Your task to perform on an android device: Open Yahoo.com Image 0: 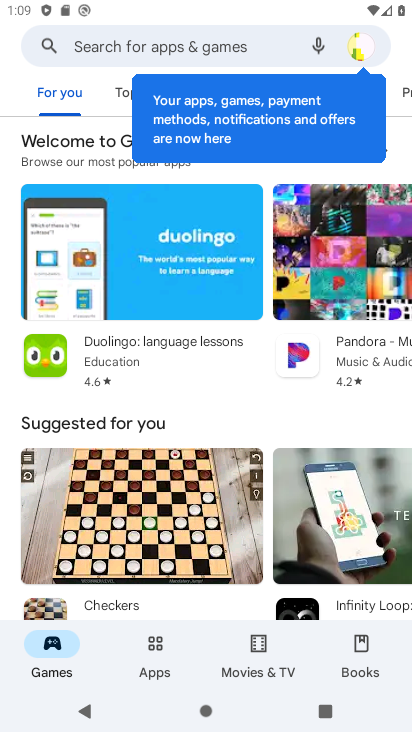
Step 0: press home button
Your task to perform on an android device: Open Yahoo.com Image 1: 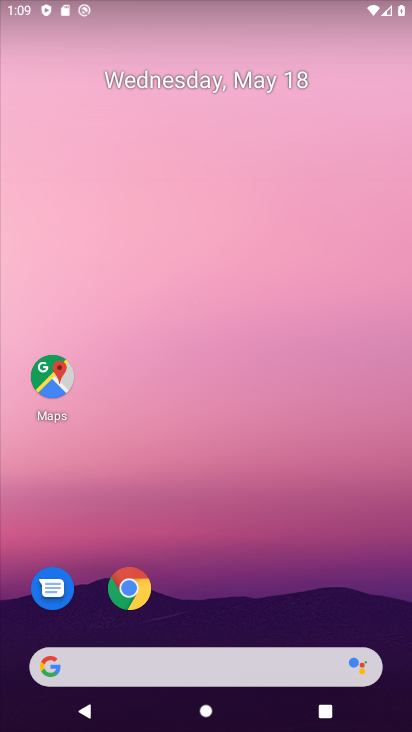
Step 1: drag from (373, 596) to (367, 153)
Your task to perform on an android device: Open Yahoo.com Image 2: 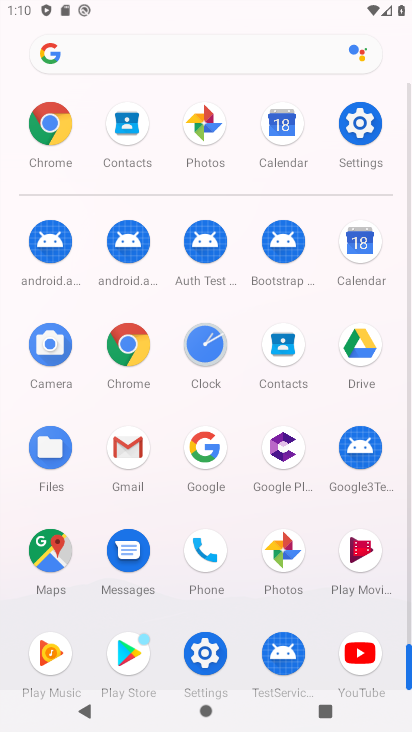
Step 2: drag from (317, 606) to (305, 387)
Your task to perform on an android device: Open Yahoo.com Image 3: 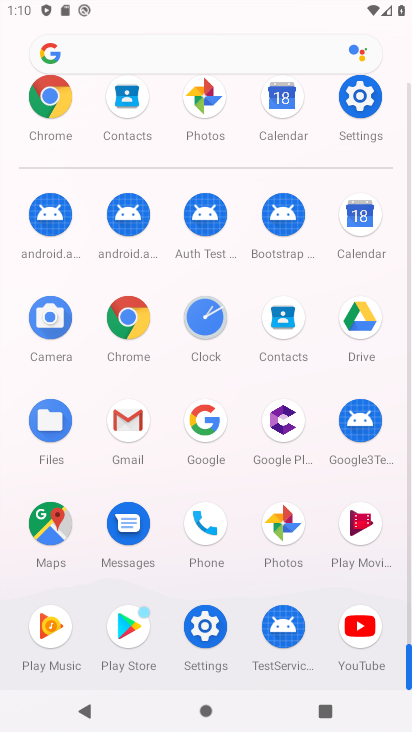
Step 3: drag from (240, 299) to (241, 428)
Your task to perform on an android device: Open Yahoo.com Image 4: 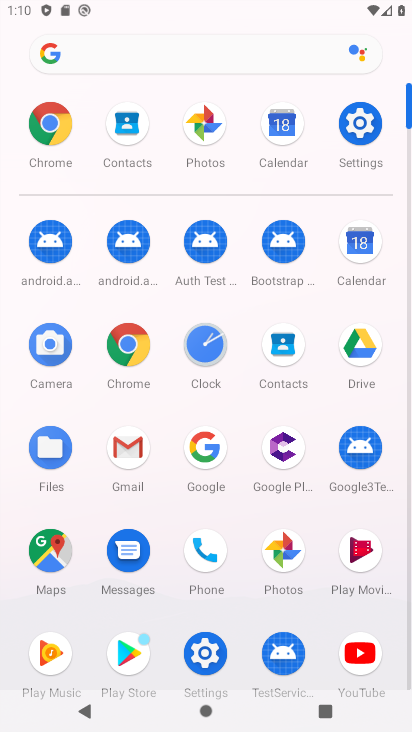
Step 4: click (131, 354)
Your task to perform on an android device: Open Yahoo.com Image 5: 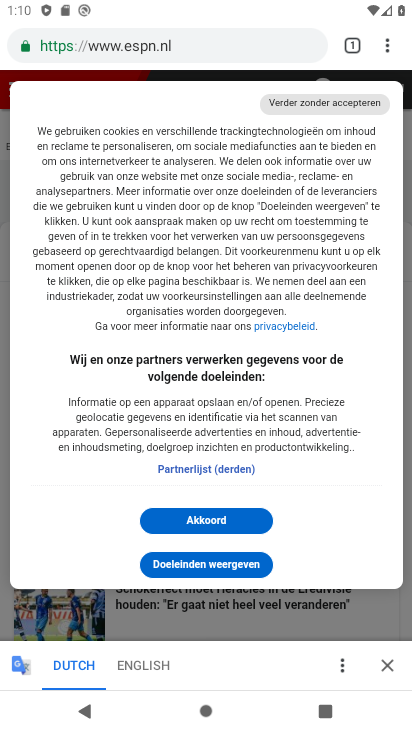
Step 5: click (160, 47)
Your task to perform on an android device: Open Yahoo.com Image 6: 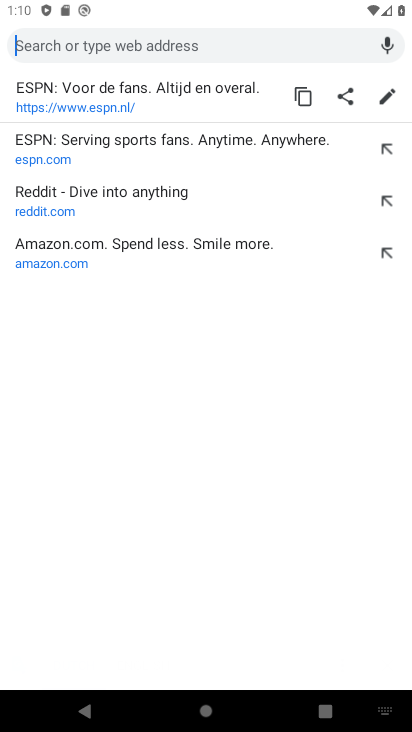
Step 6: type "yahoo.com"
Your task to perform on an android device: Open Yahoo.com Image 7: 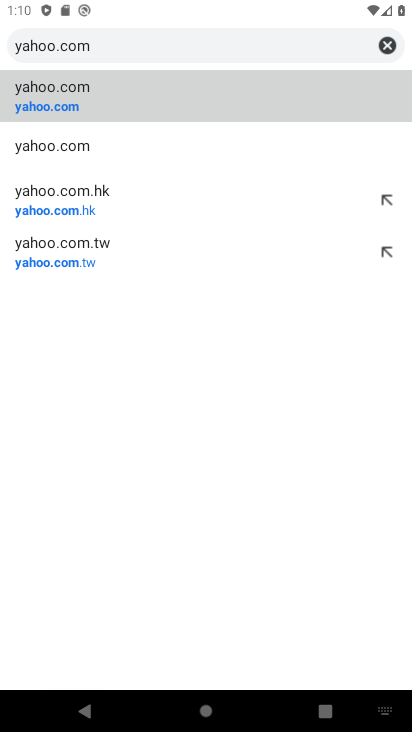
Step 7: click (110, 101)
Your task to perform on an android device: Open Yahoo.com Image 8: 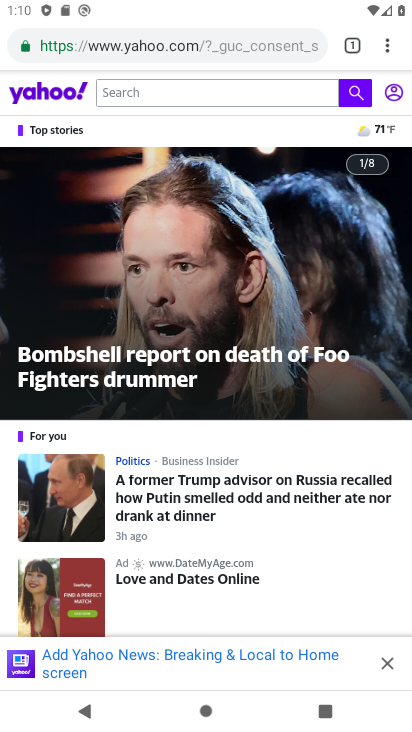
Step 8: task complete